Your task to perform on an android device: Open ESPN.com Image 0: 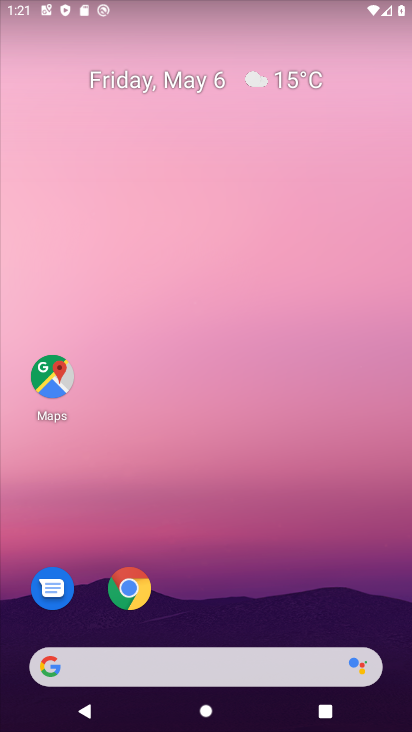
Step 0: drag from (195, 549) to (243, 143)
Your task to perform on an android device: Open ESPN.com Image 1: 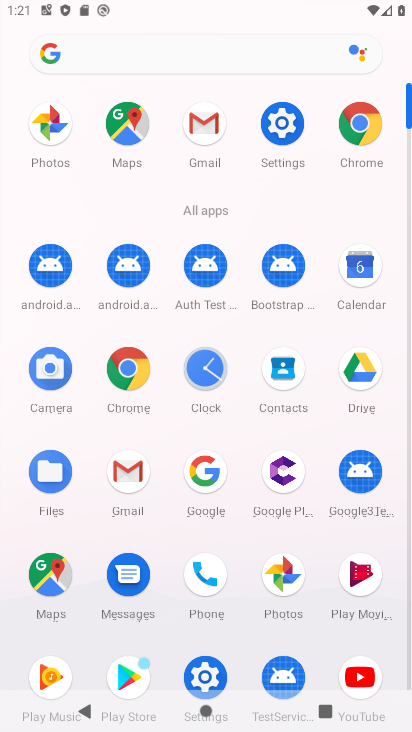
Step 1: click (236, 52)
Your task to perform on an android device: Open ESPN.com Image 2: 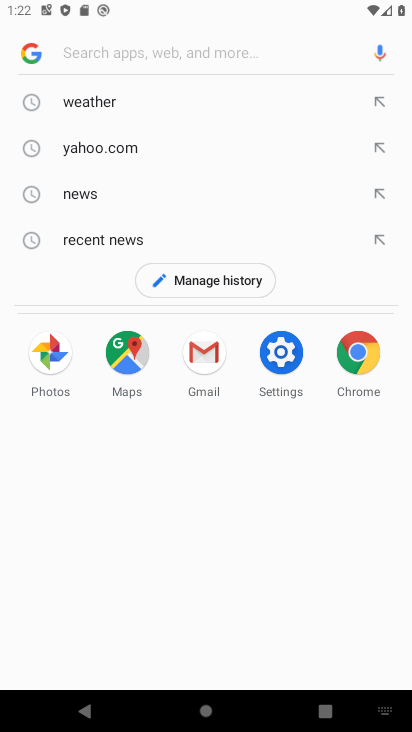
Step 2: type "espn"
Your task to perform on an android device: Open ESPN.com Image 3: 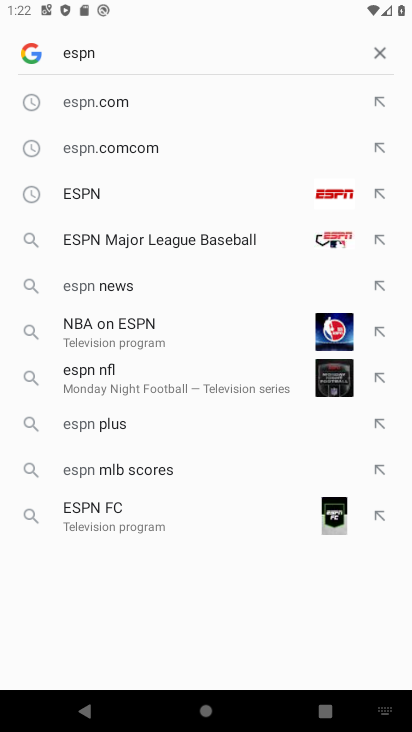
Step 3: click (108, 106)
Your task to perform on an android device: Open ESPN.com Image 4: 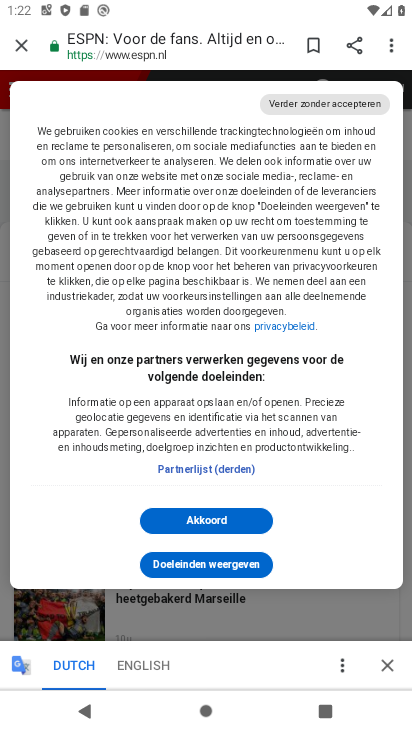
Step 4: task complete